Your task to perform on an android device: Open Google Maps and go to "Timeline" Image 0: 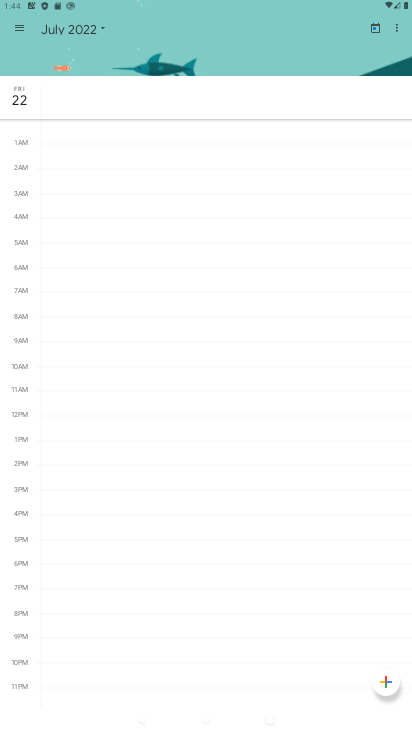
Step 0: press home button
Your task to perform on an android device: Open Google Maps and go to "Timeline" Image 1: 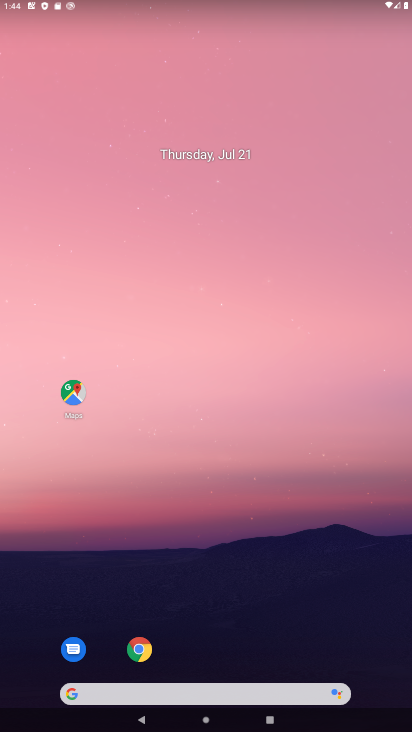
Step 1: drag from (223, 726) to (196, 214)
Your task to perform on an android device: Open Google Maps and go to "Timeline" Image 2: 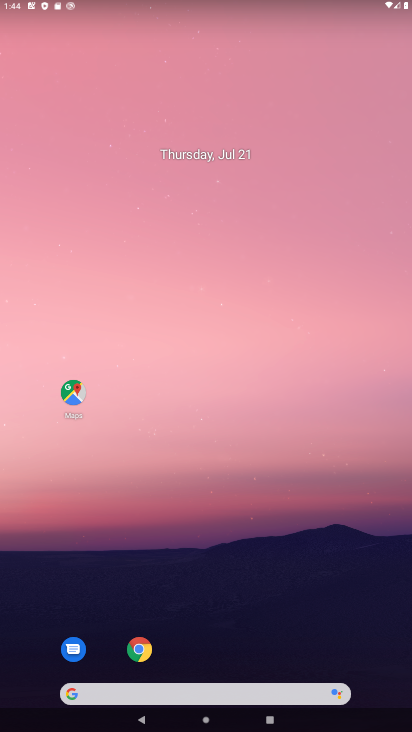
Step 2: drag from (223, 724) to (226, 137)
Your task to perform on an android device: Open Google Maps and go to "Timeline" Image 3: 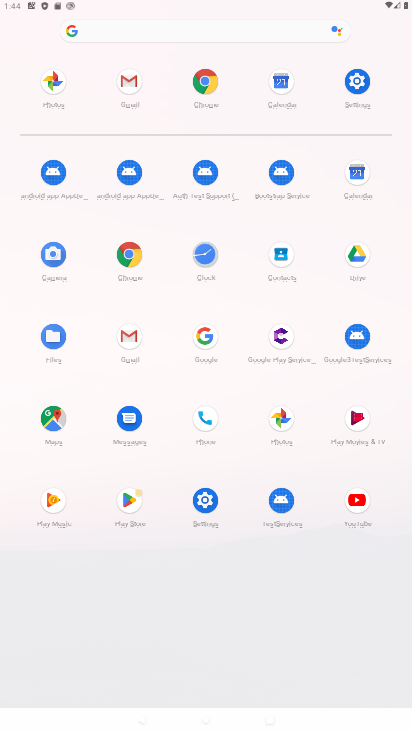
Step 3: click (53, 415)
Your task to perform on an android device: Open Google Maps and go to "Timeline" Image 4: 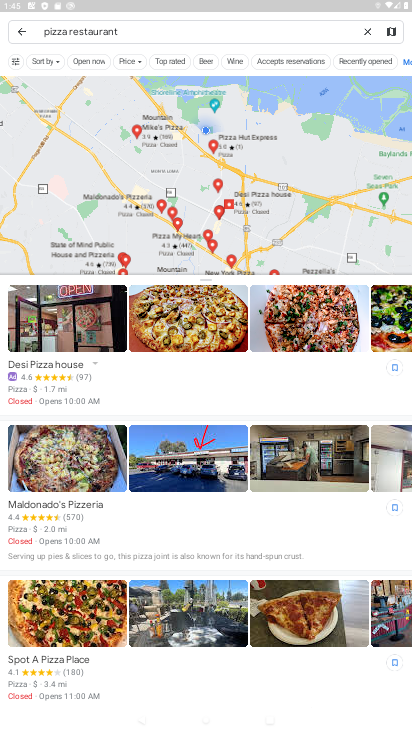
Step 4: click (21, 31)
Your task to perform on an android device: Open Google Maps and go to "Timeline" Image 5: 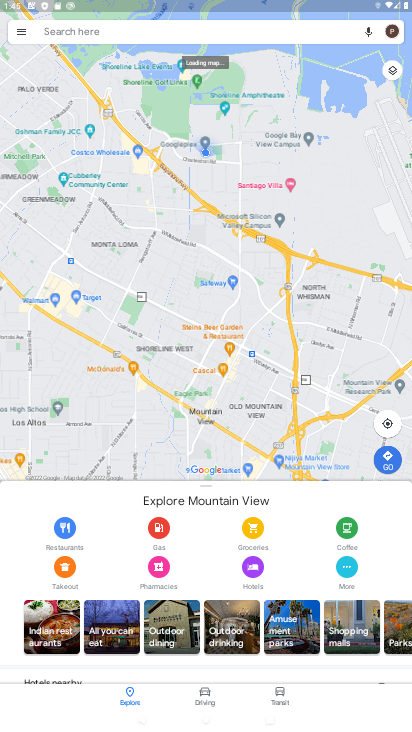
Step 5: click (25, 30)
Your task to perform on an android device: Open Google Maps and go to "Timeline" Image 6: 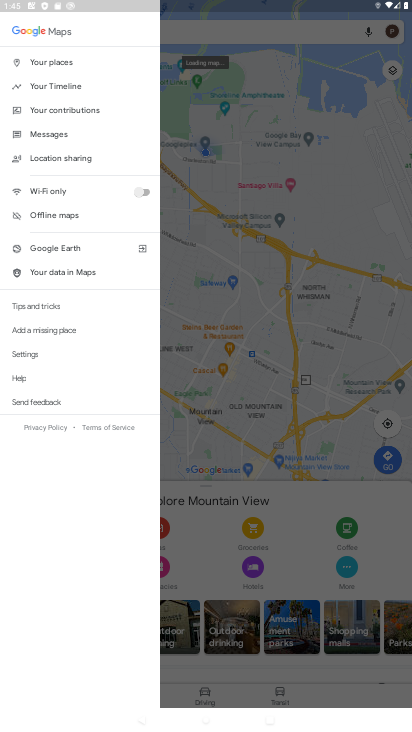
Step 6: click (65, 84)
Your task to perform on an android device: Open Google Maps and go to "Timeline" Image 7: 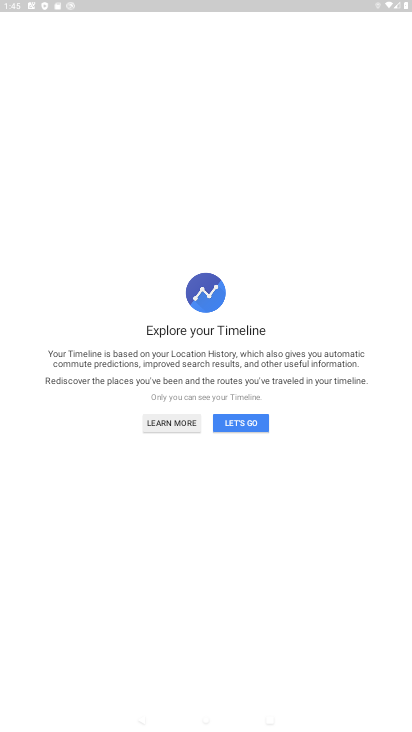
Step 7: click (232, 422)
Your task to perform on an android device: Open Google Maps and go to "Timeline" Image 8: 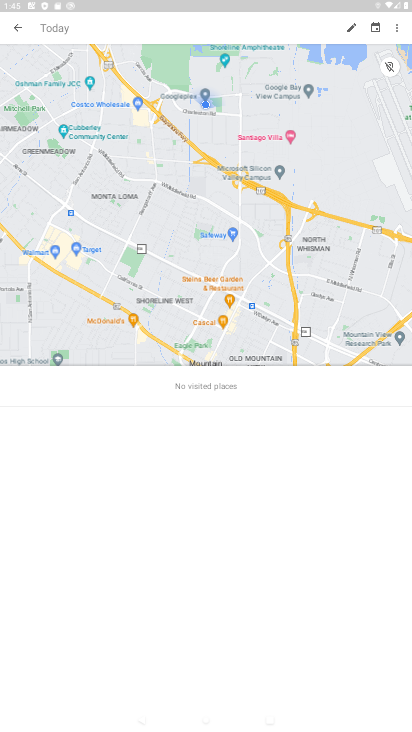
Step 8: task complete